Your task to perform on an android device: change your default location settings in chrome Image 0: 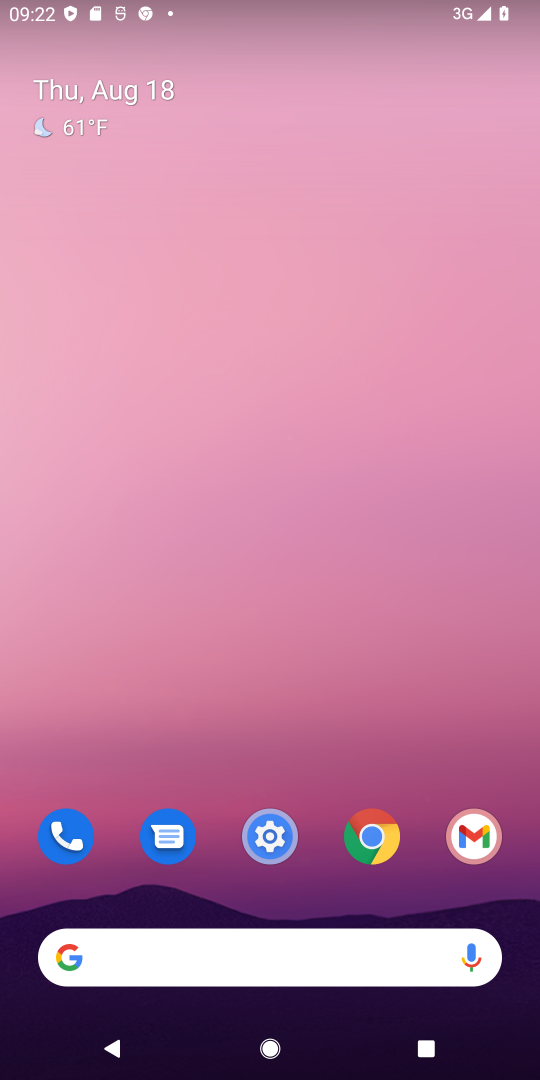
Step 0: drag from (342, 752) to (4, 401)
Your task to perform on an android device: change your default location settings in chrome Image 1: 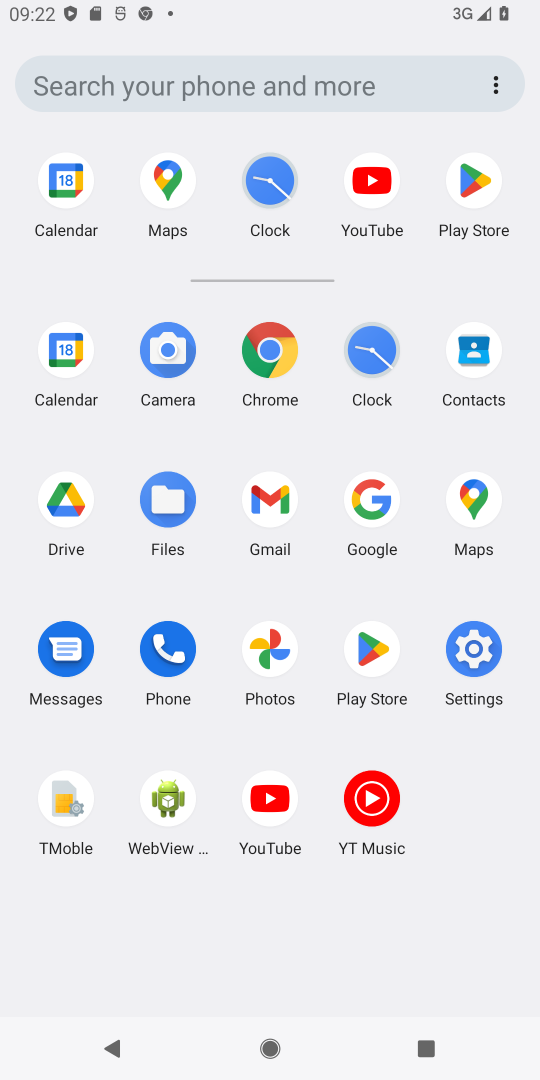
Step 1: click (266, 349)
Your task to perform on an android device: change your default location settings in chrome Image 2: 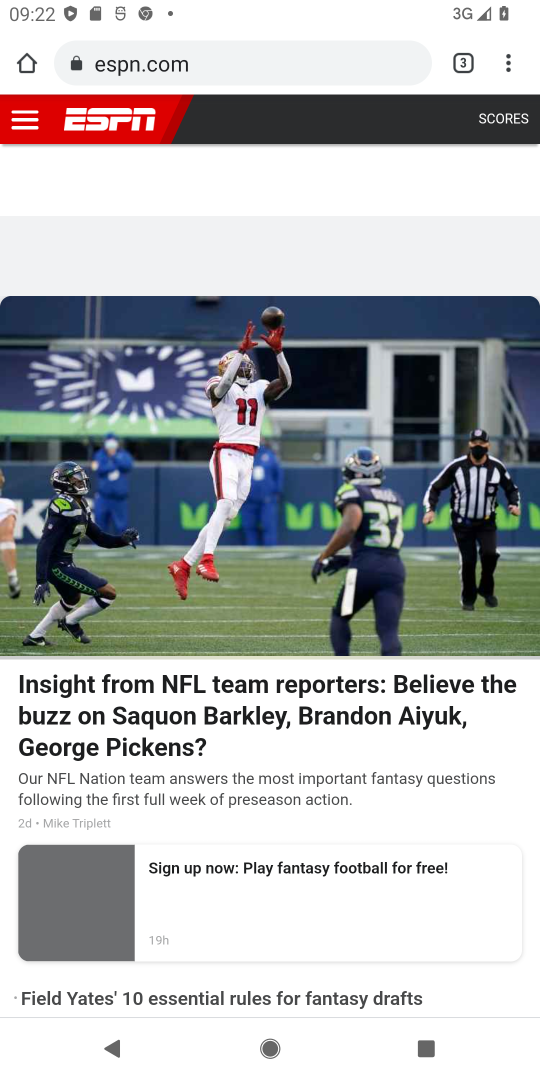
Step 2: drag from (513, 51) to (350, 781)
Your task to perform on an android device: change your default location settings in chrome Image 3: 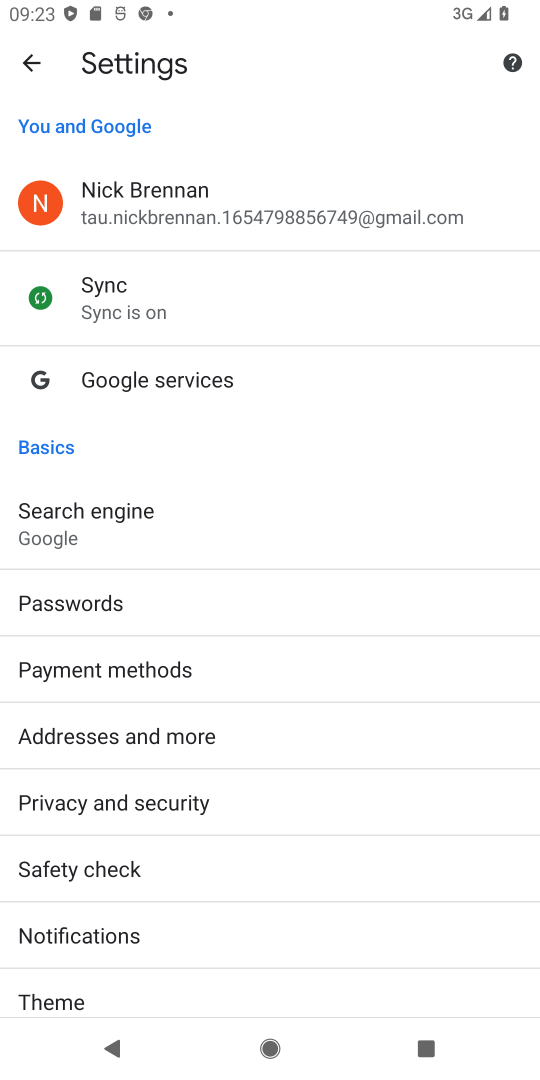
Step 3: click (112, 504)
Your task to perform on an android device: change your default location settings in chrome Image 4: 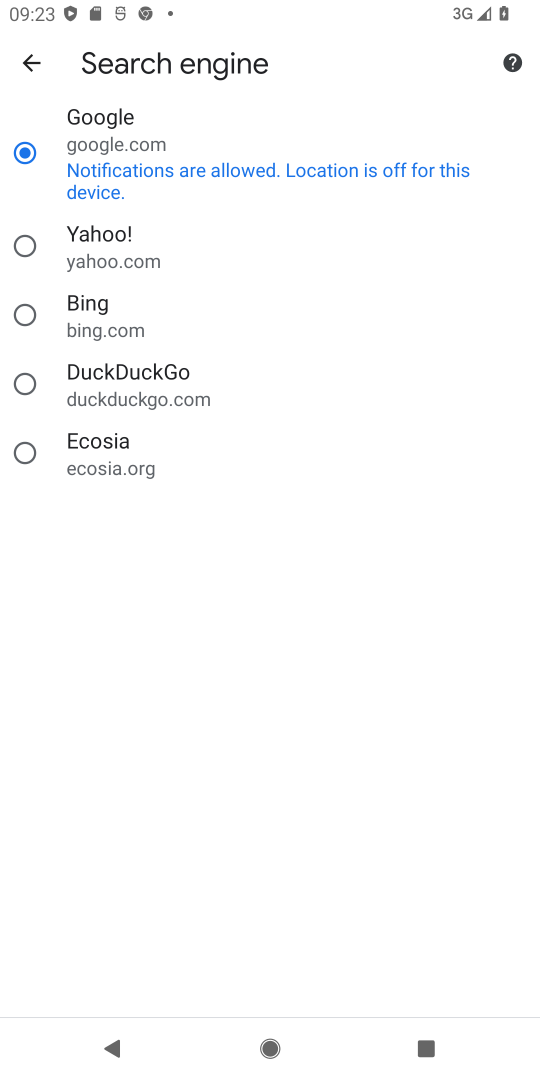
Step 4: click (39, 67)
Your task to perform on an android device: change your default location settings in chrome Image 5: 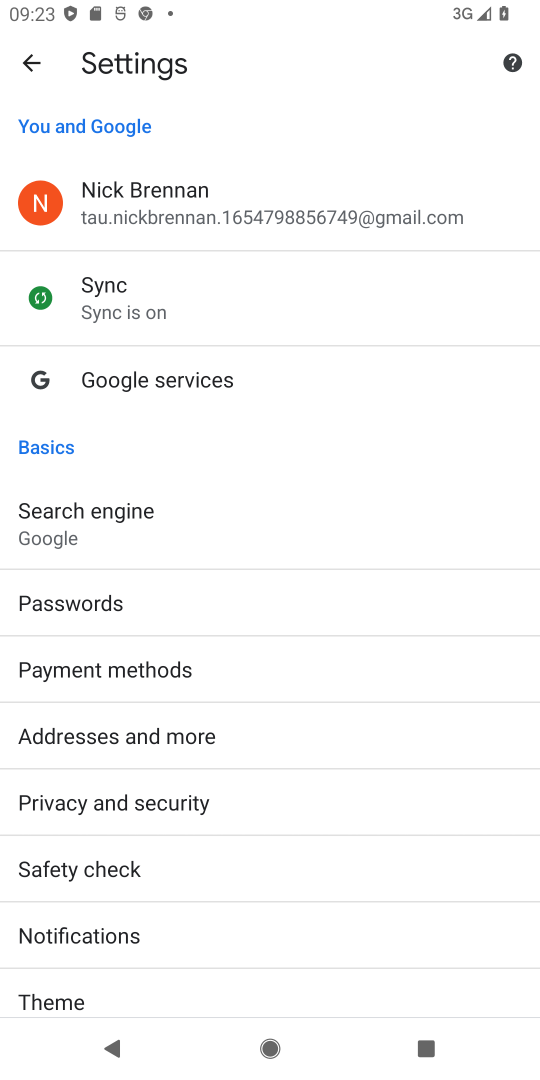
Step 5: drag from (138, 884) to (181, 575)
Your task to perform on an android device: change your default location settings in chrome Image 6: 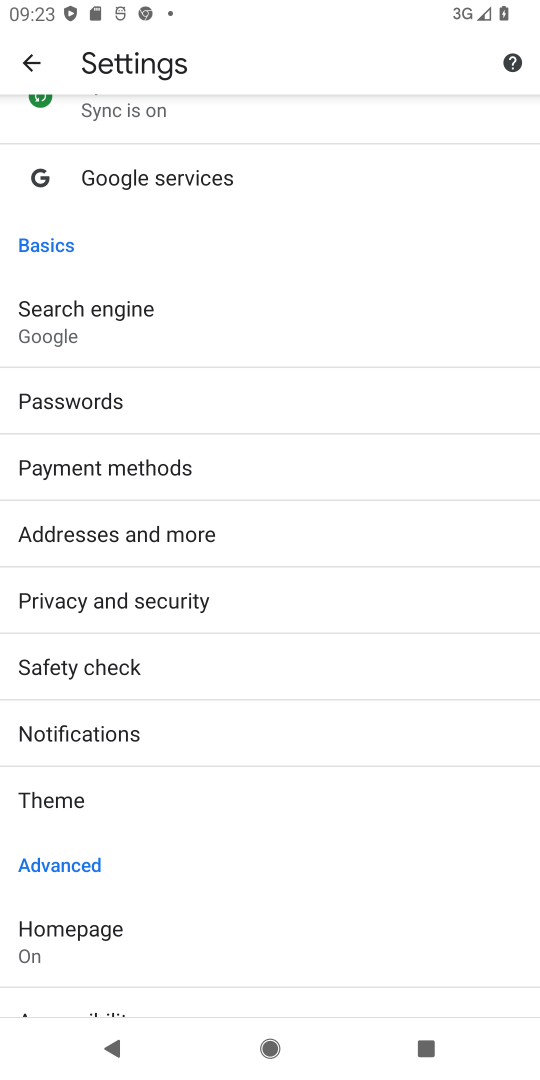
Step 6: drag from (160, 940) to (208, 365)
Your task to perform on an android device: change your default location settings in chrome Image 7: 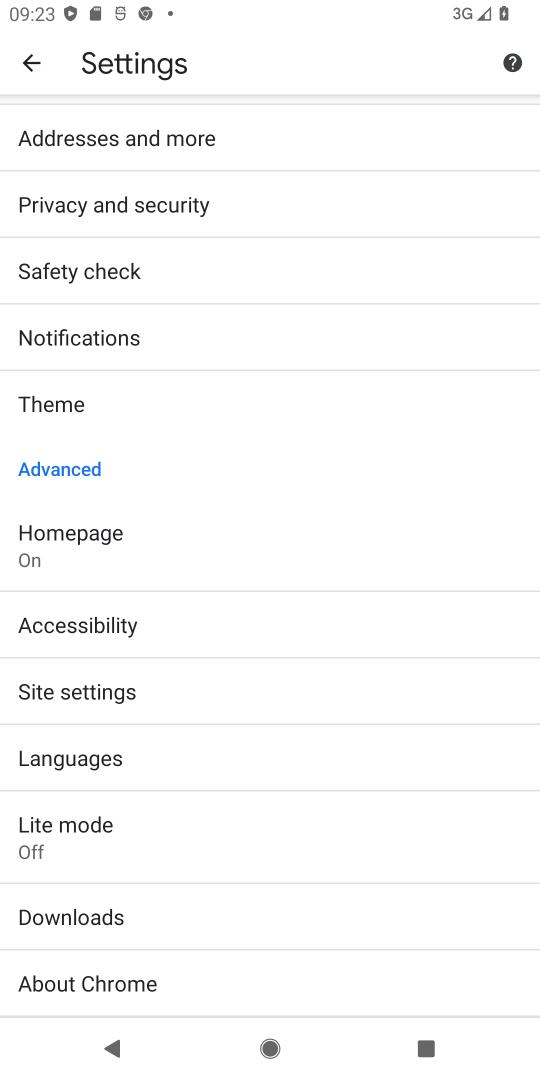
Step 7: click (110, 688)
Your task to perform on an android device: change your default location settings in chrome Image 8: 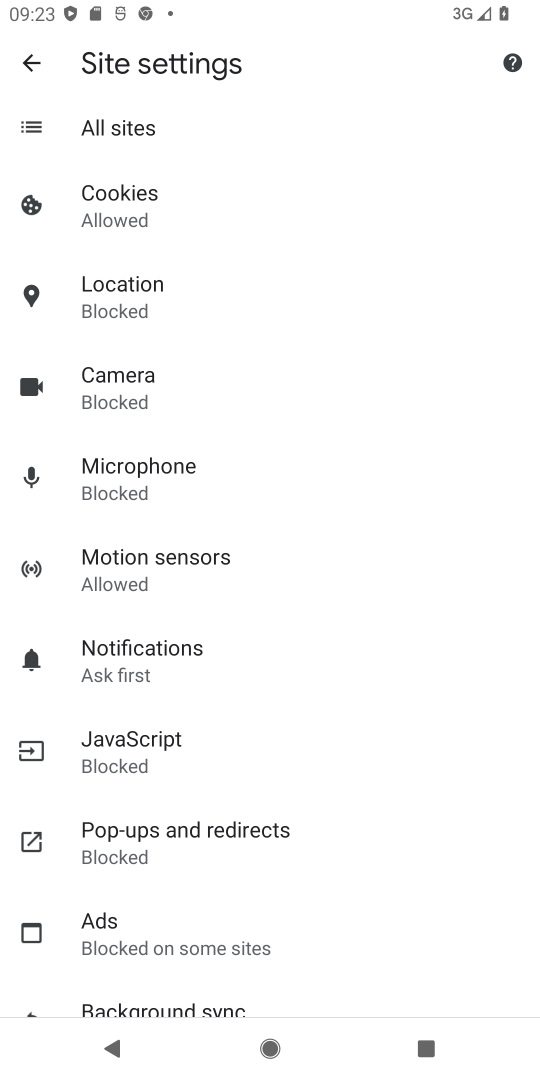
Step 8: drag from (233, 807) to (231, 545)
Your task to perform on an android device: change your default location settings in chrome Image 9: 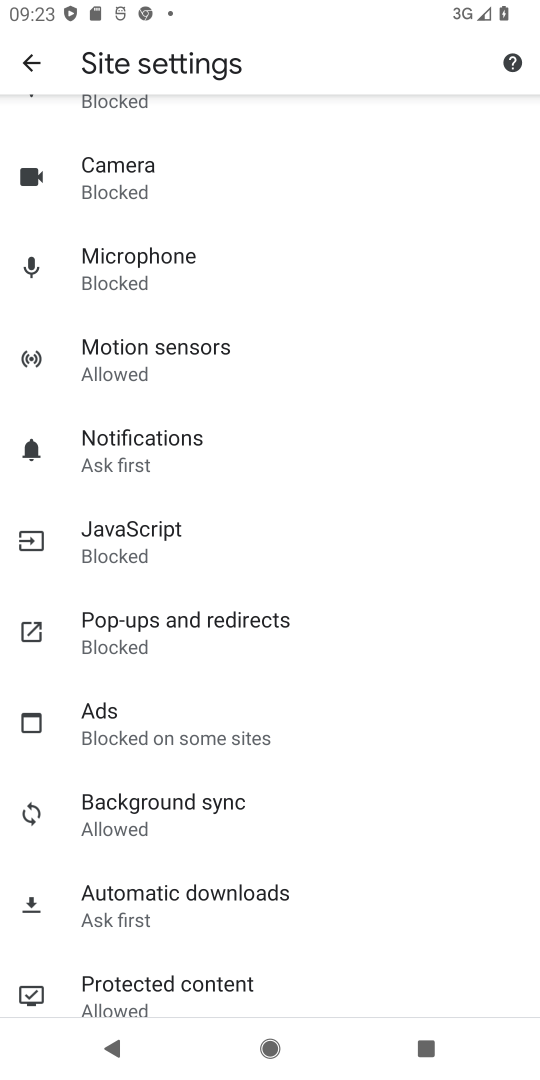
Step 9: drag from (148, 168) to (239, 590)
Your task to perform on an android device: change your default location settings in chrome Image 10: 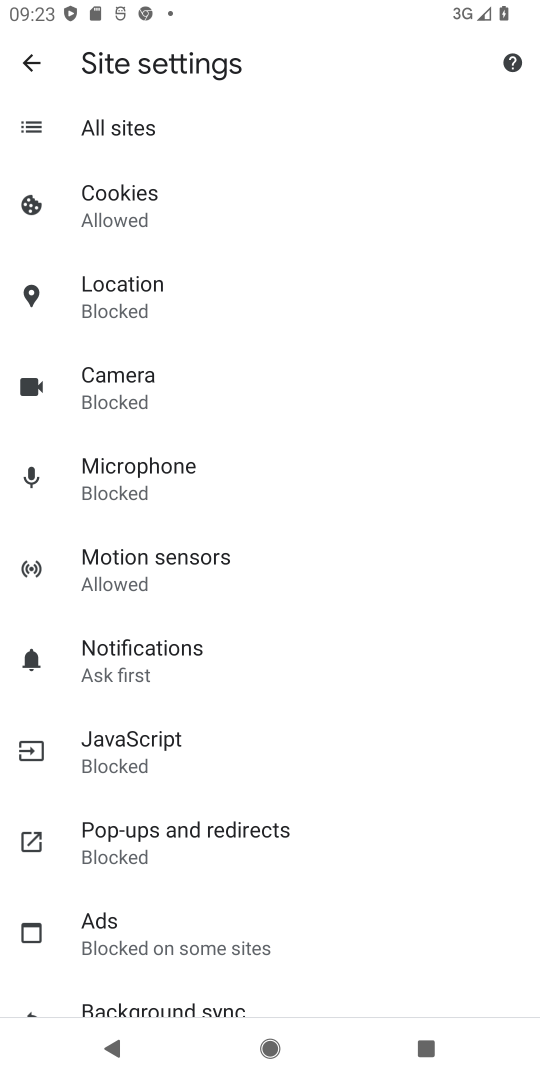
Step 10: click (109, 291)
Your task to perform on an android device: change your default location settings in chrome Image 11: 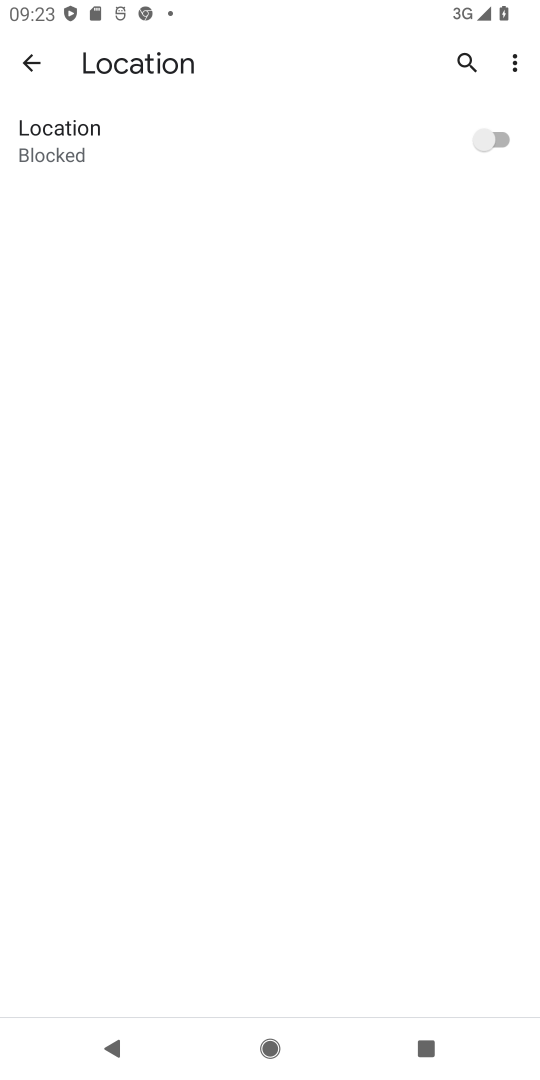
Step 11: click (462, 132)
Your task to perform on an android device: change your default location settings in chrome Image 12: 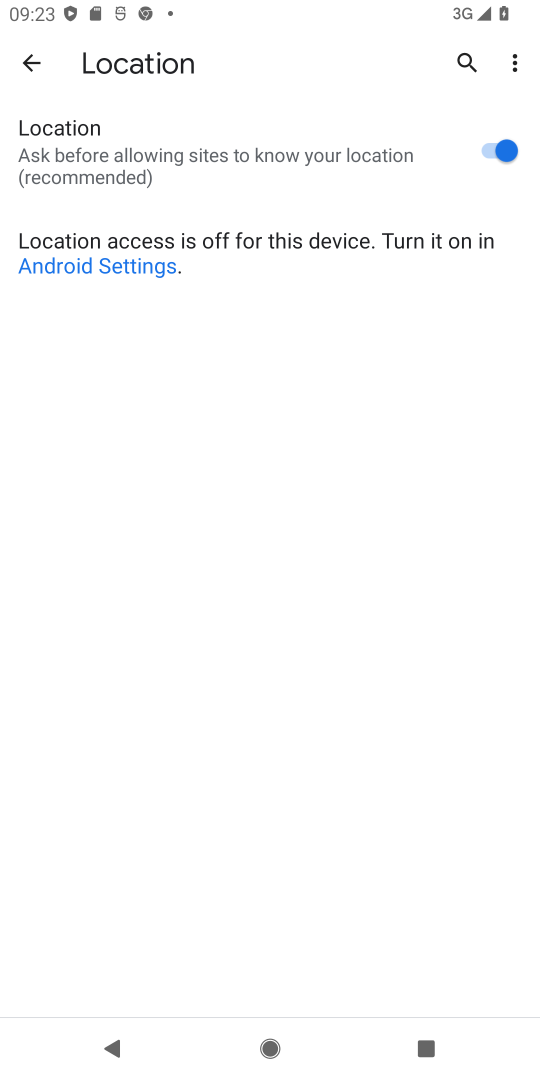
Step 12: task complete